Your task to perform on an android device: Open CNN.com Image 0: 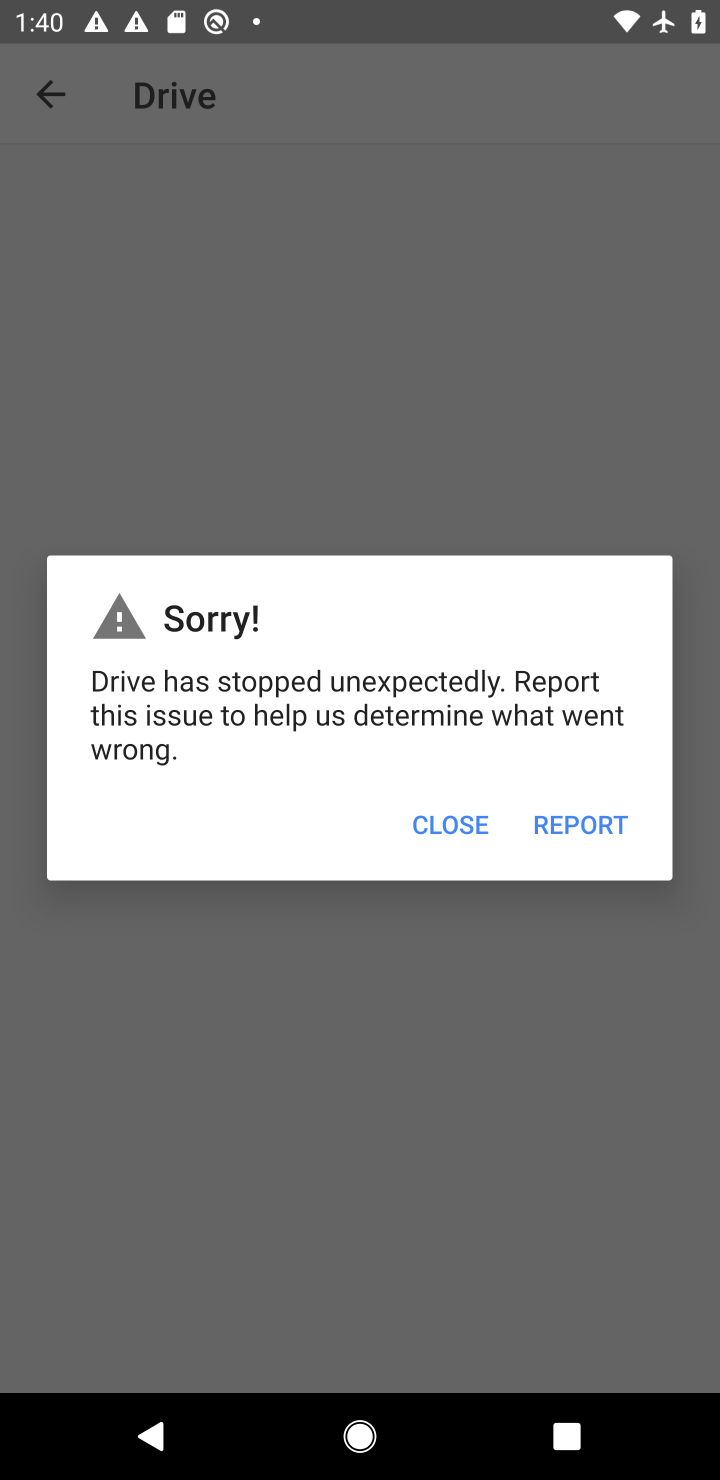
Step 0: click (479, 842)
Your task to perform on an android device: Open CNN.com Image 1: 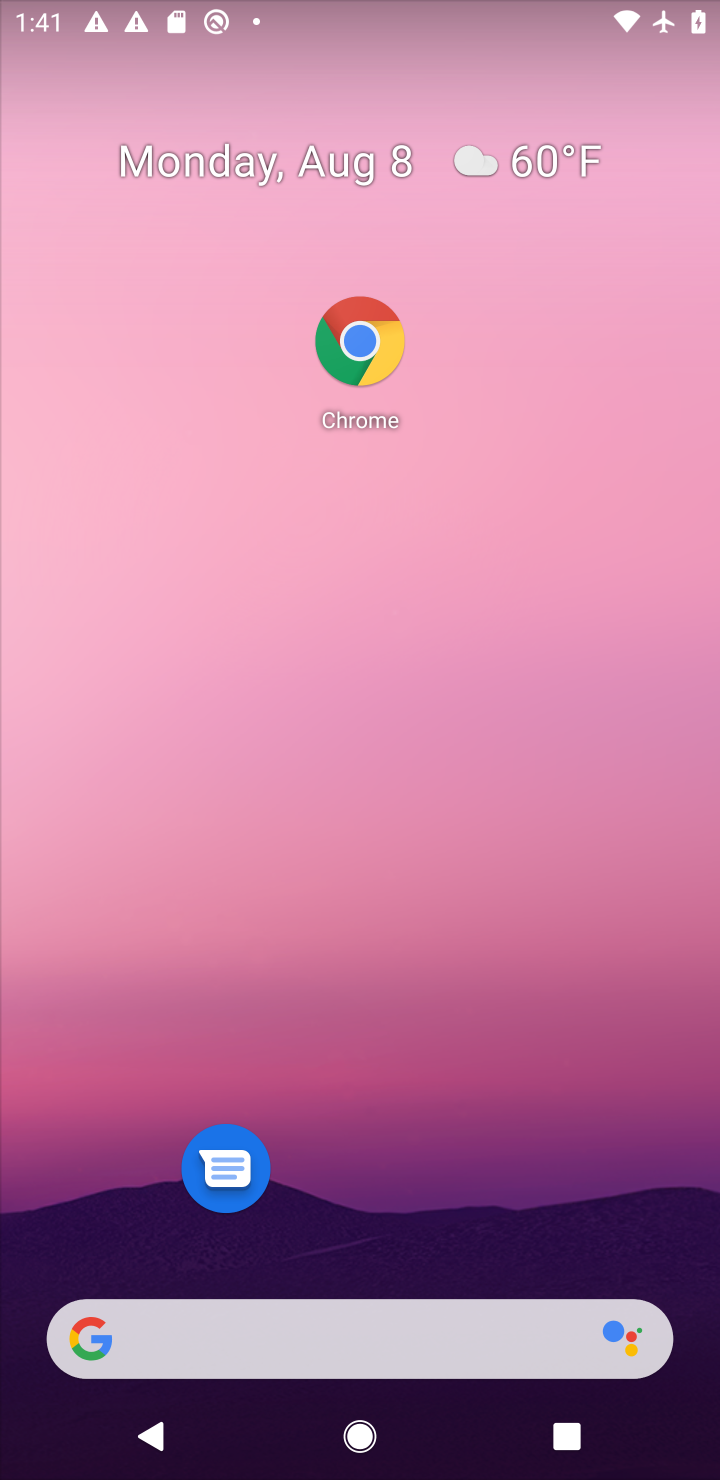
Step 1: click (325, 1318)
Your task to perform on an android device: Open CNN.com Image 2: 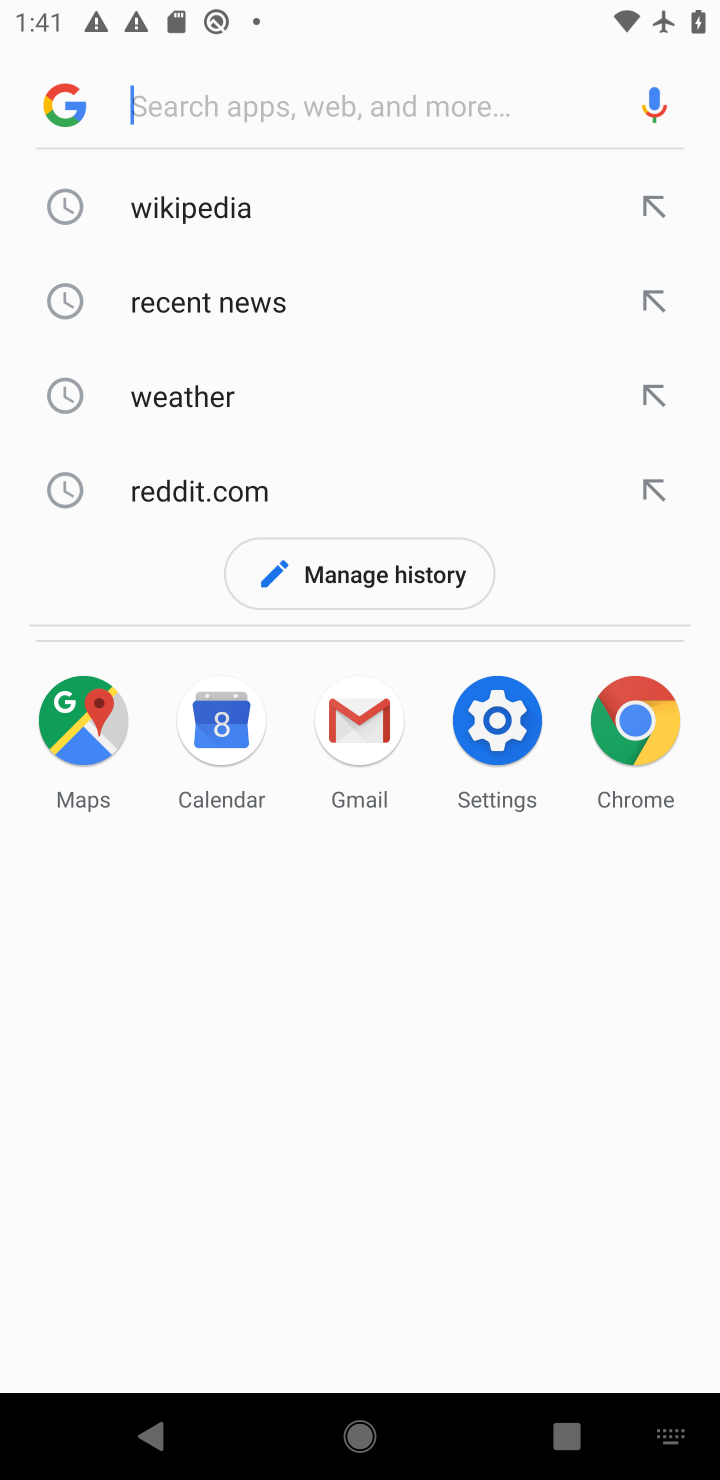
Step 2: type "cnn.com"
Your task to perform on an android device: Open CNN.com Image 3: 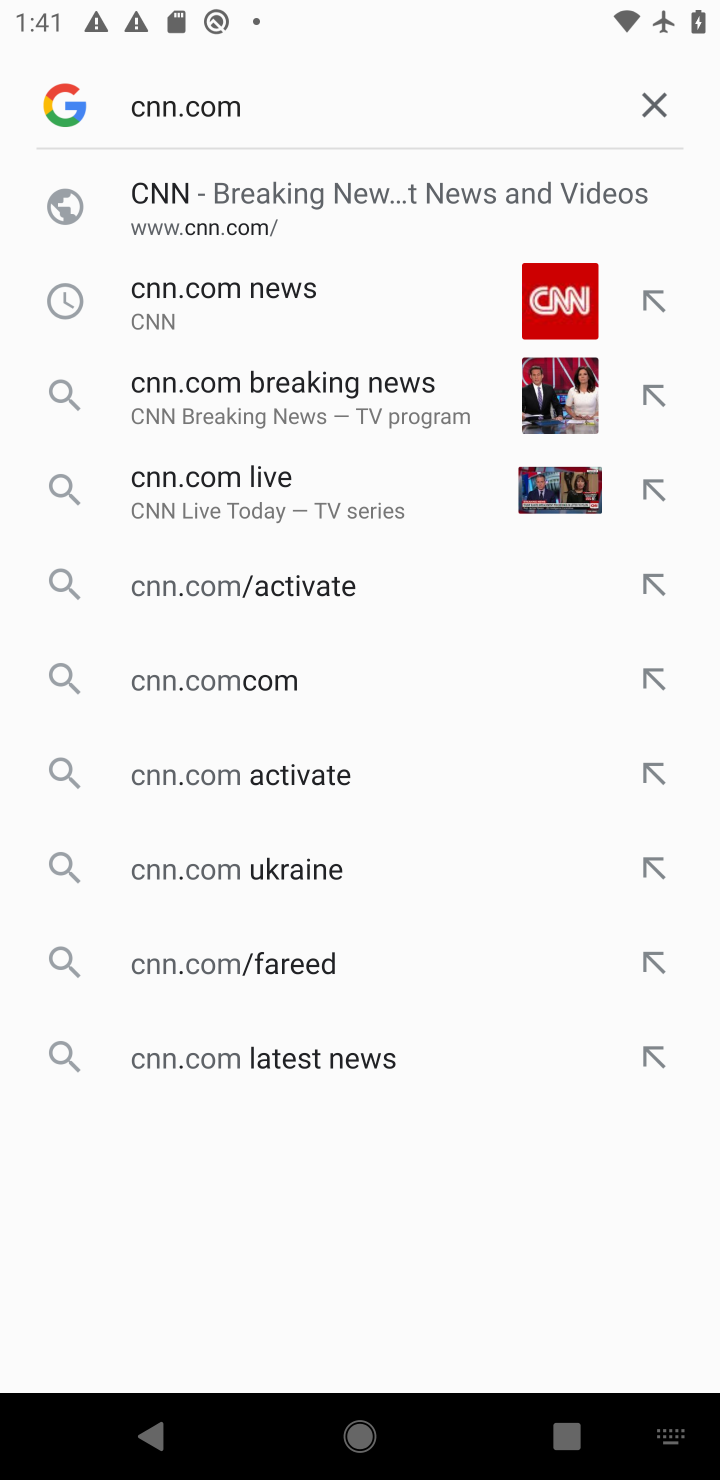
Step 3: click (375, 247)
Your task to perform on an android device: Open CNN.com Image 4: 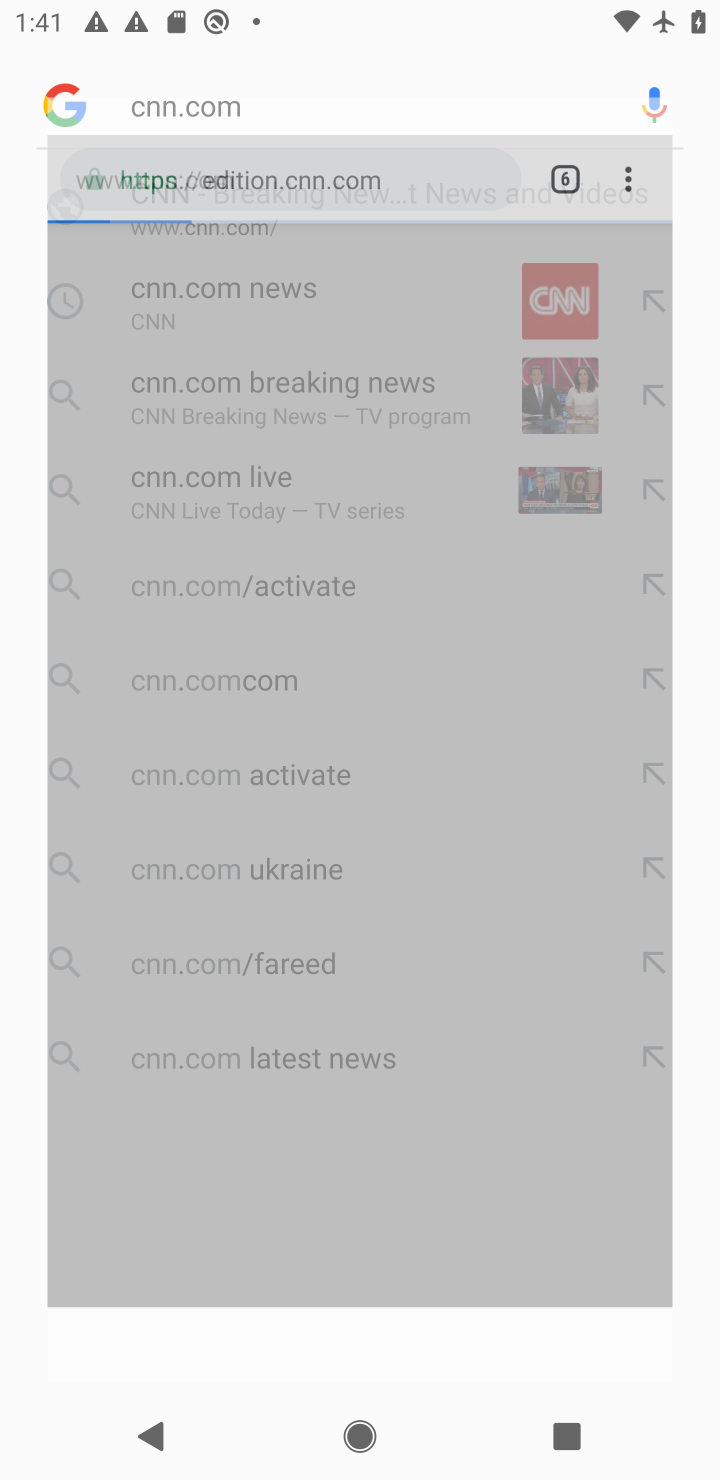
Step 4: task complete